Your task to perform on an android device: Do I have any events tomorrow? Image 0: 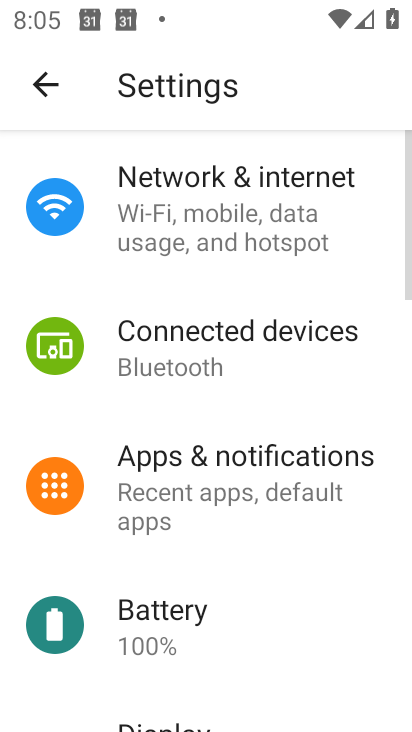
Step 0: press home button
Your task to perform on an android device: Do I have any events tomorrow? Image 1: 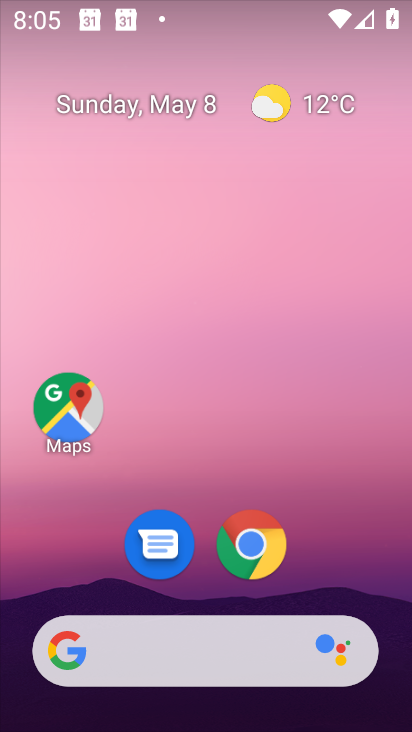
Step 1: drag from (350, 558) to (178, 8)
Your task to perform on an android device: Do I have any events tomorrow? Image 2: 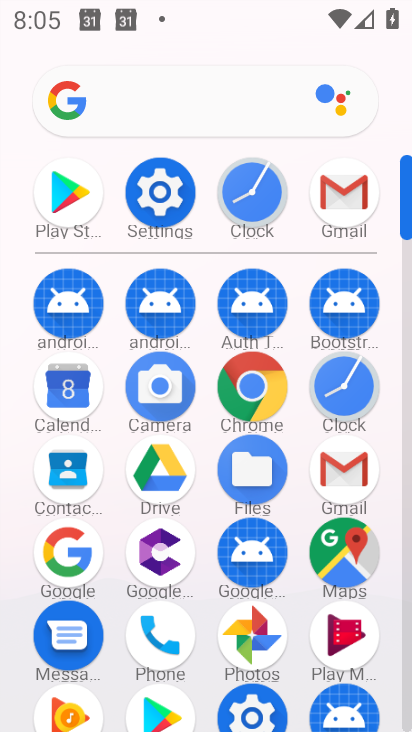
Step 2: click (61, 394)
Your task to perform on an android device: Do I have any events tomorrow? Image 3: 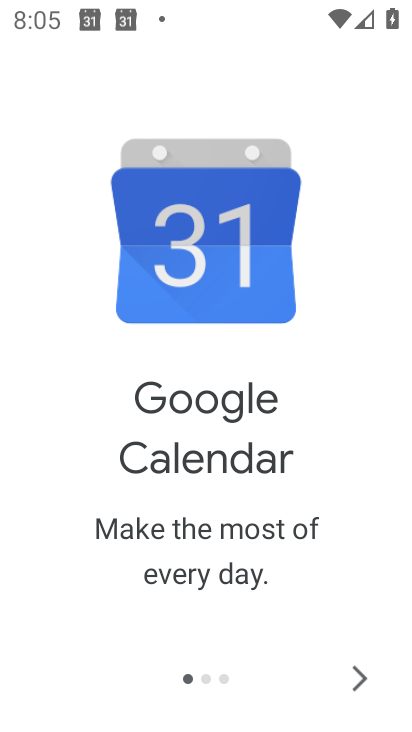
Step 3: click (355, 670)
Your task to perform on an android device: Do I have any events tomorrow? Image 4: 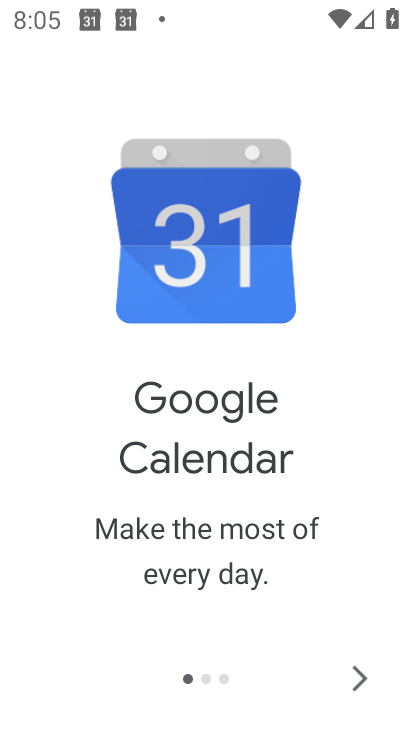
Step 4: click (355, 670)
Your task to perform on an android device: Do I have any events tomorrow? Image 5: 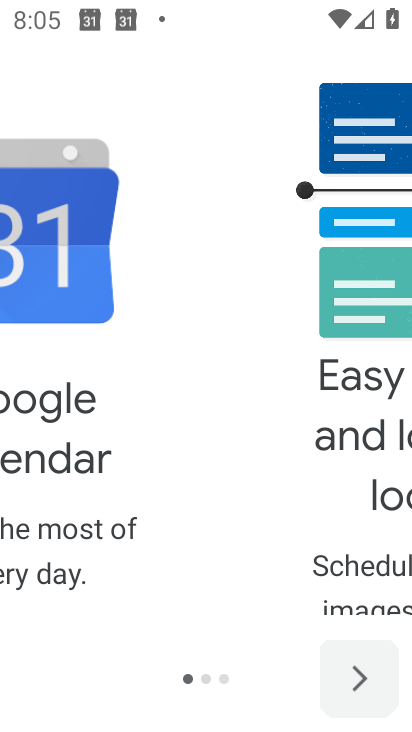
Step 5: click (355, 670)
Your task to perform on an android device: Do I have any events tomorrow? Image 6: 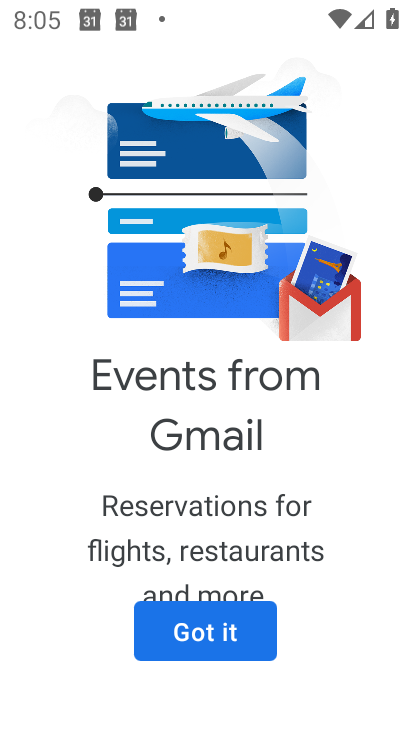
Step 6: click (240, 638)
Your task to perform on an android device: Do I have any events tomorrow? Image 7: 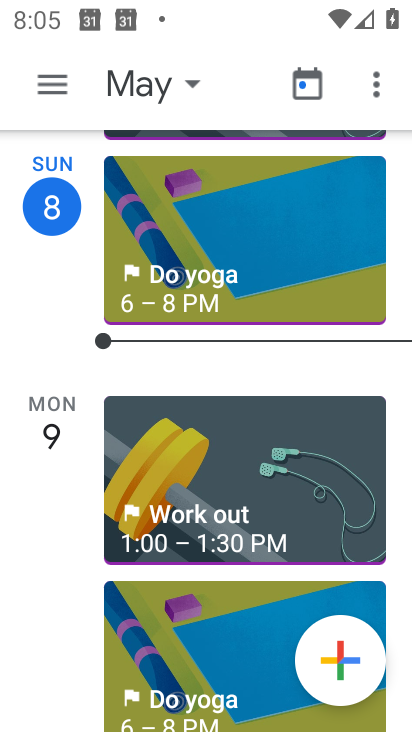
Step 7: click (55, 85)
Your task to perform on an android device: Do I have any events tomorrow? Image 8: 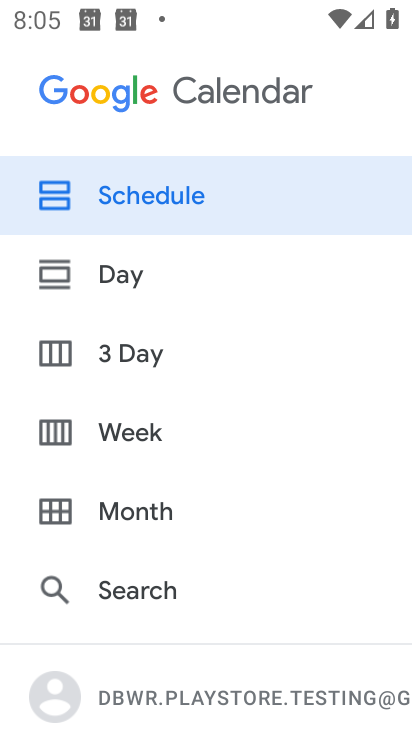
Step 8: click (122, 280)
Your task to perform on an android device: Do I have any events tomorrow? Image 9: 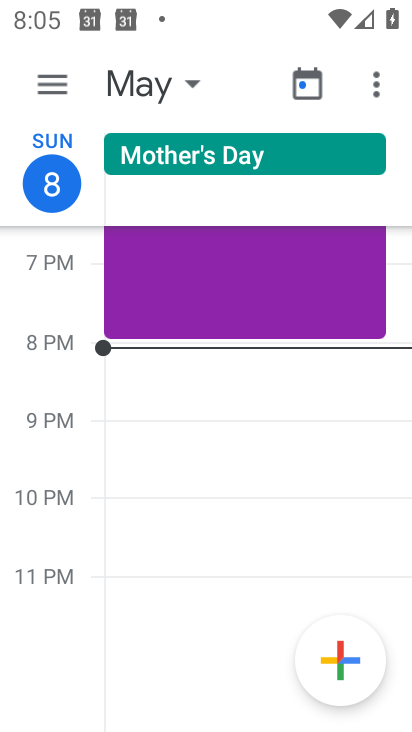
Step 9: click (187, 88)
Your task to perform on an android device: Do I have any events tomorrow? Image 10: 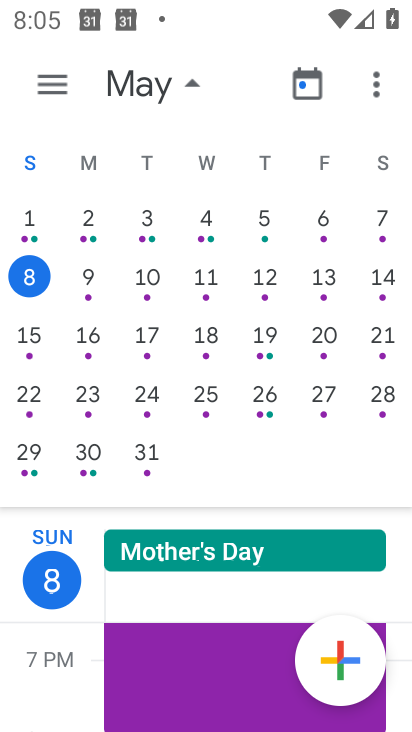
Step 10: click (80, 284)
Your task to perform on an android device: Do I have any events tomorrow? Image 11: 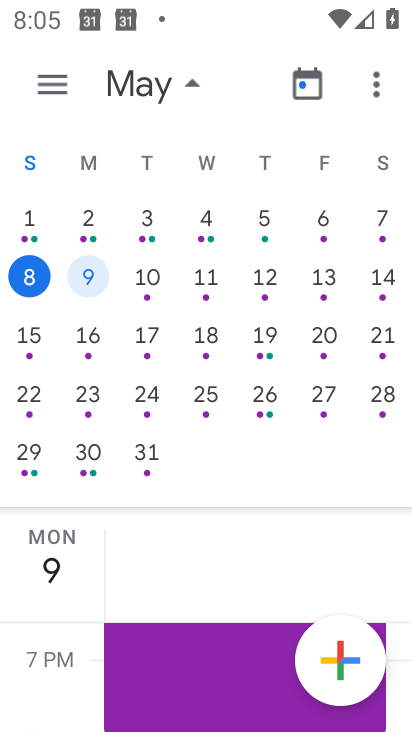
Step 11: task complete